Your task to perform on an android device: toggle priority inbox in the gmail app Image 0: 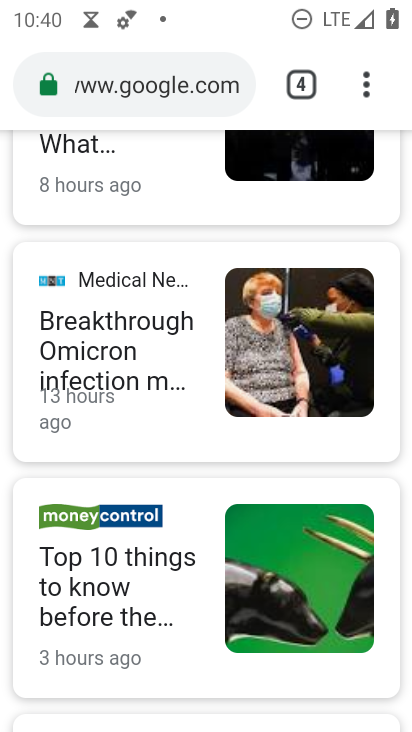
Step 0: press home button
Your task to perform on an android device: toggle priority inbox in the gmail app Image 1: 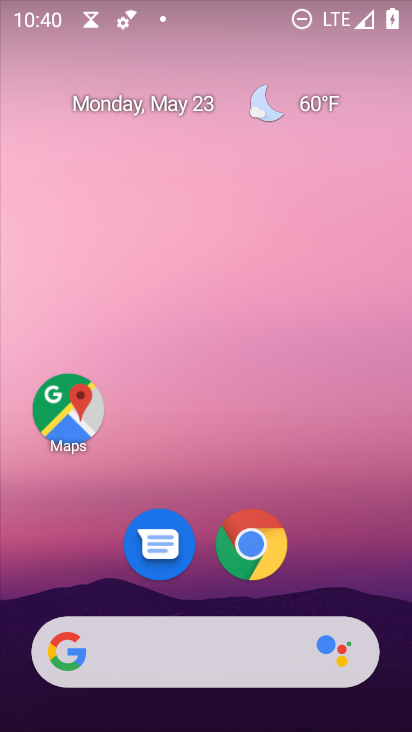
Step 1: drag from (328, 521) to (84, 136)
Your task to perform on an android device: toggle priority inbox in the gmail app Image 2: 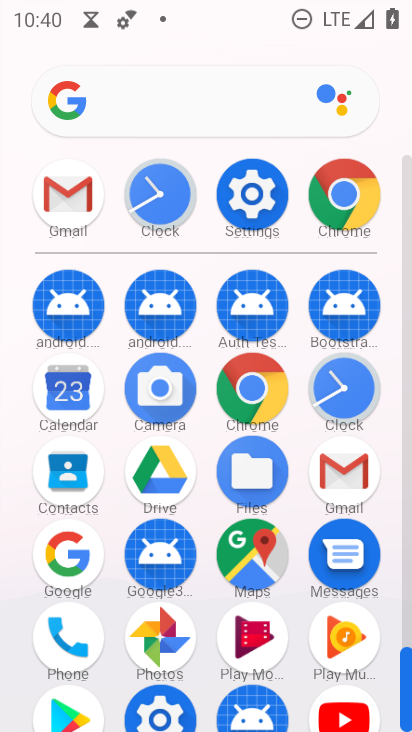
Step 2: click (341, 483)
Your task to perform on an android device: toggle priority inbox in the gmail app Image 3: 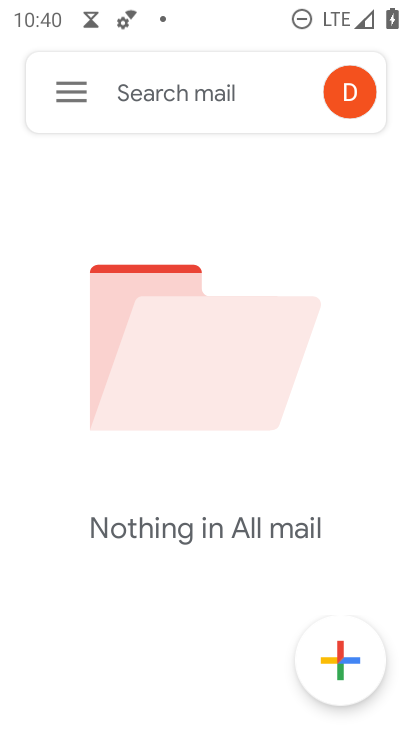
Step 3: click (68, 104)
Your task to perform on an android device: toggle priority inbox in the gmail app Image 4: 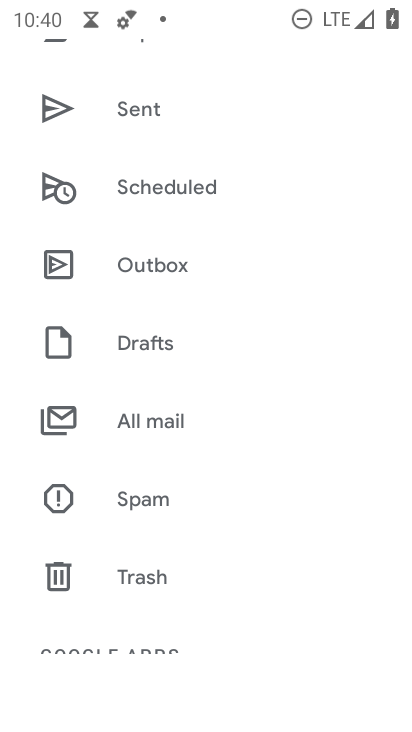
Step 4: drag from (293, 145) to (274, 582)
Your task to perform on an android device: toggle priority inbox in the gmail app Image 5: 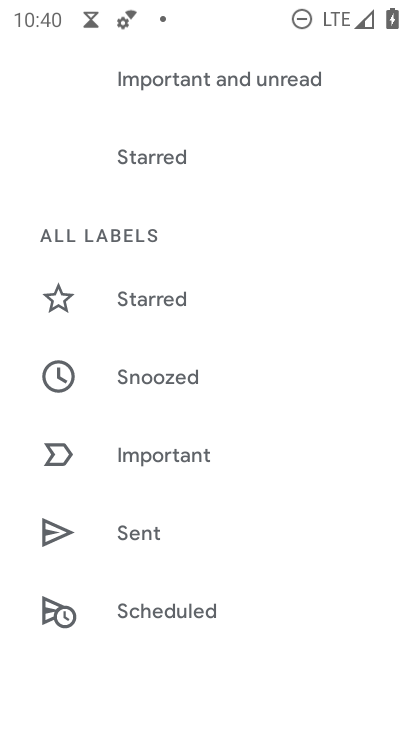
Step 5: click (220, 191)
Your task to perform on an android device: toggle priority inbox in the gmail app Image 6: 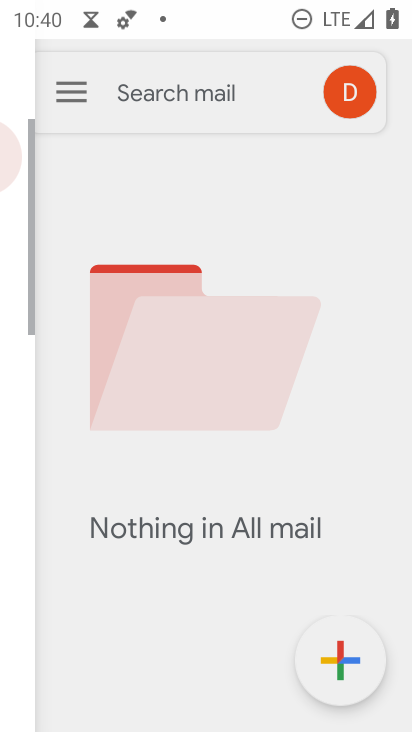
Step 6: drag from (210, 382) to (210, 519)
Your task to perform on an android device: toggle priority inbox in the gmail app Image 7: 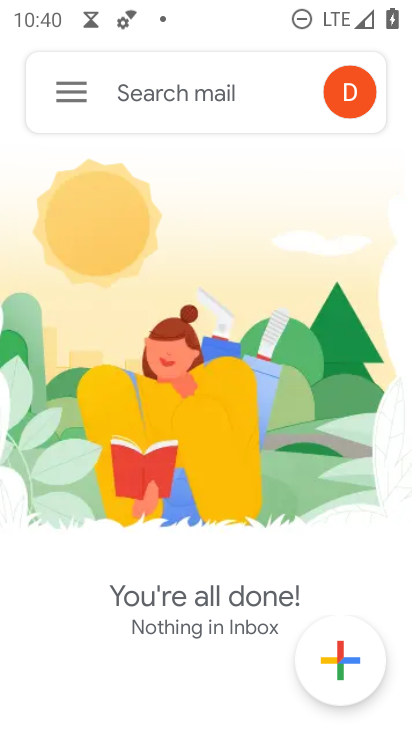
Step 7: click (68, 103)
Your task to perform on an android device: toggle priority inbox in the gmail app Image 8: 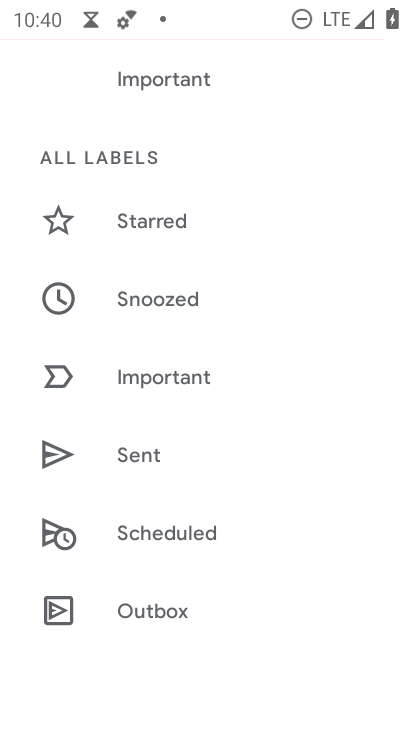
Step 8: drag from (124, 117) to (122, 483)
Your task to perform on an android device: toggle priority inbox in the gmail app Image 9: 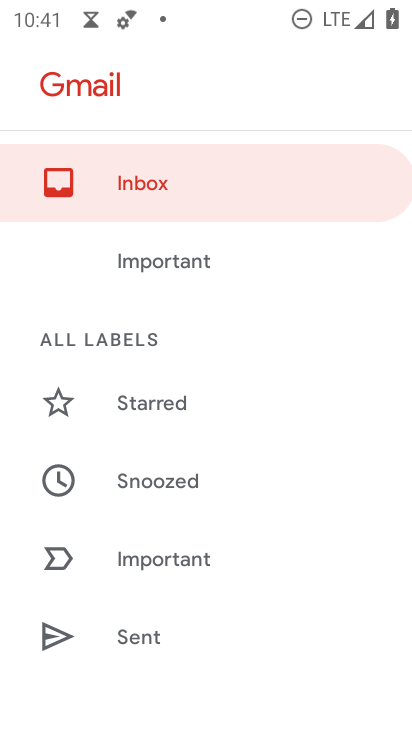
Step 9: drag from (228, 623) to (213, 517)
Your task to perform on an android device: toggle priority inbox in the gmail app Image 10: 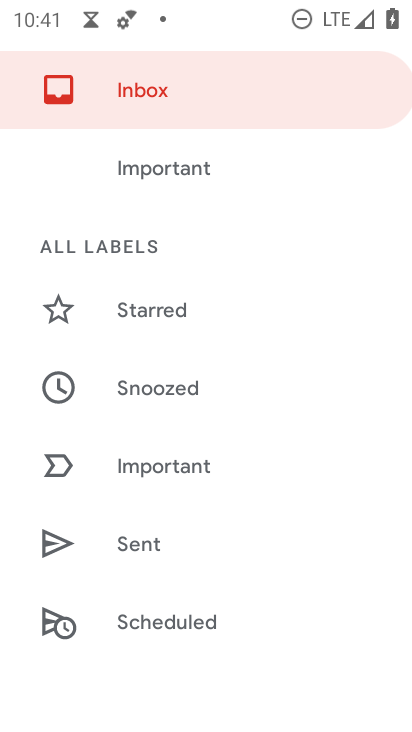
Step 10: drag from (210, 403) to (199, 170)
Your task to perform on an android device: toggle priority inbox in the gmail app Image 11: 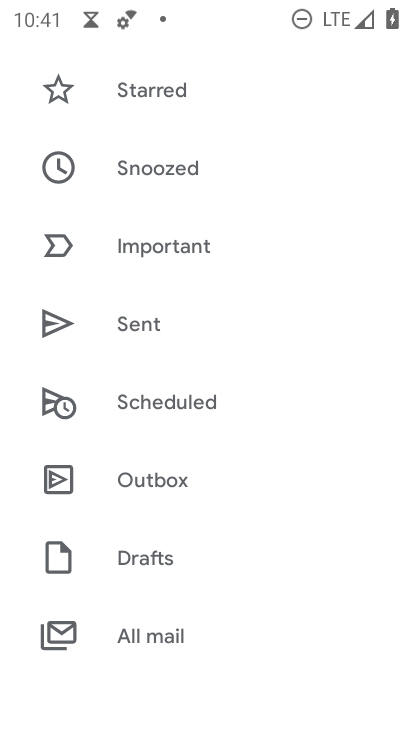
Step 11: drag from (231, 596) to (236, 552)
Your task to perform on an android device: toggle priority inbox in the gmail app Image 12: 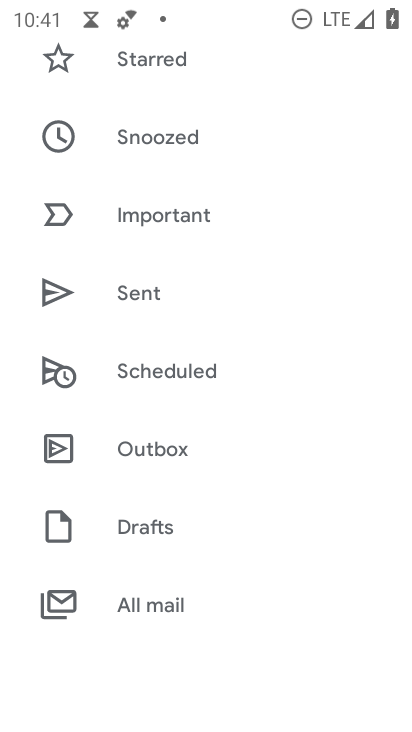
Step 12: click (236, 399)
Your task to perform on an android device: toggle priority inbox in the gmail app Image 13: 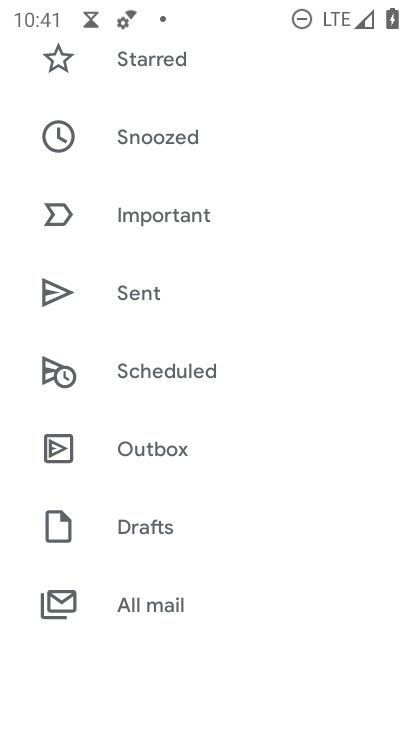
Step 13: drag from (236, 353) to (236, 164)
Your task to perform on an android device: toggle priority inbox in the gmail app Image 14: 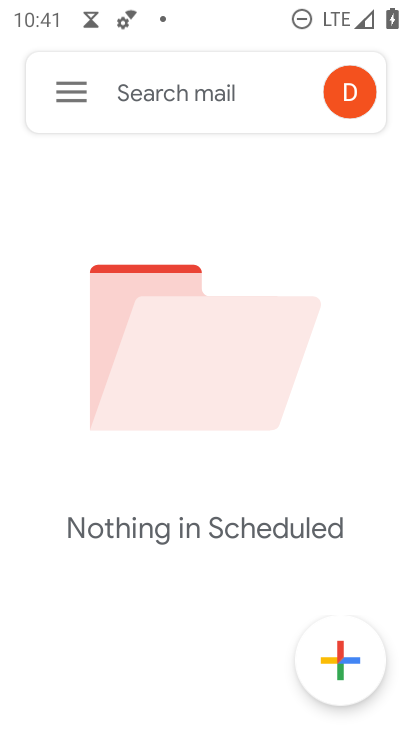
Step 14: click (72, 94)
Your task to perform on an android device: toggle priority inbox in the gmail app Image 15: 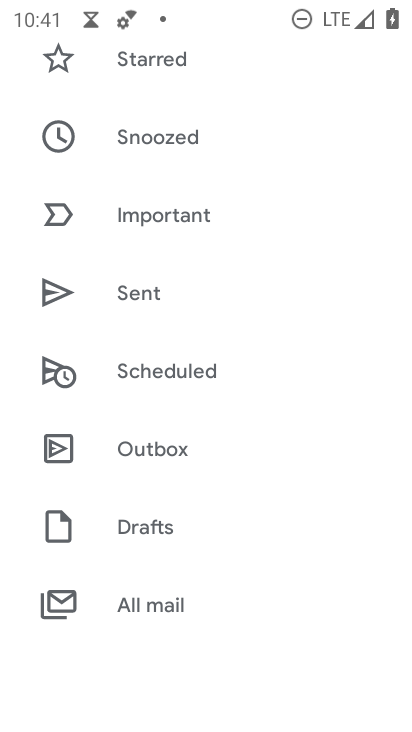
Step 15: drag from (167, 625) to (163, 200)
Your task to perform on an android device: toggle priority inbox in the gmail app Image 16: 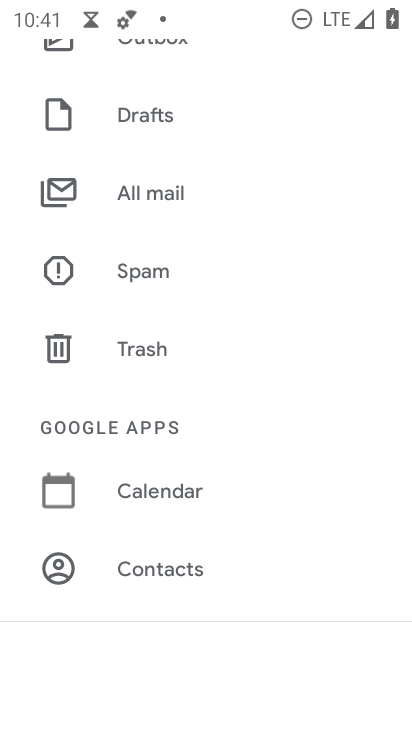
Step 16: drag from (178, 621) to (169, 365)
Your task to perform on an android device: toggle priority inbox in the gmail app Image 17: 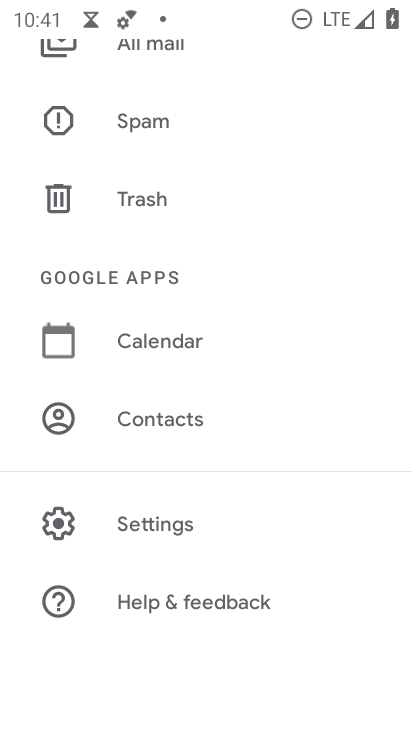
Step 17: click (139, 520)
Your task to perform on an android device: toggle priority inbox in the gmail app Image 18: 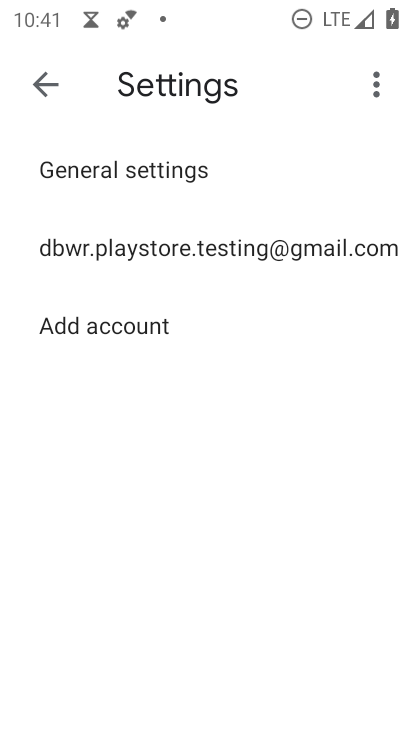
Step 18: click (234, 248)
Your task to perform on an android device: toggle priority inbox in the gmail app Image 19: 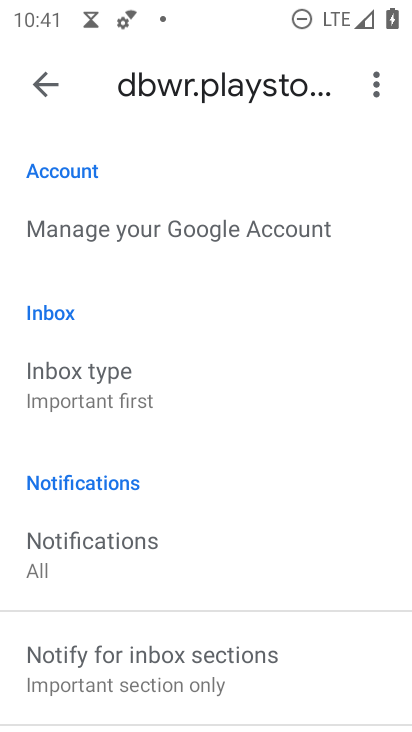
Step 19: click (108, 394)
Your task to perform on an android device: toggle priority inbox in the gmail app Image 20: 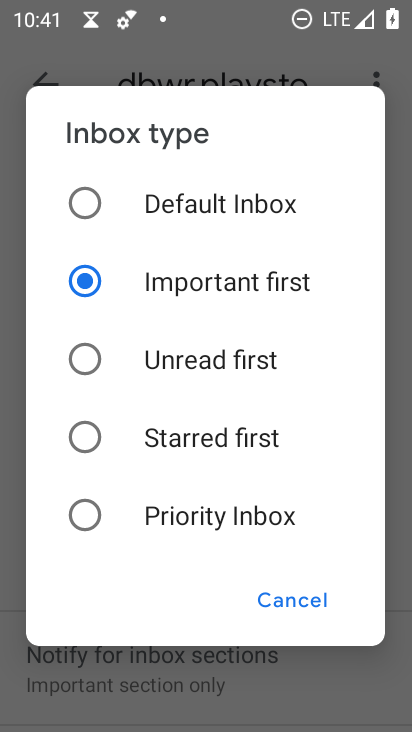
Step 20: click (90, 515)
Your task to perform on an android device: toggle priority inbox in the gmail app Image 21: 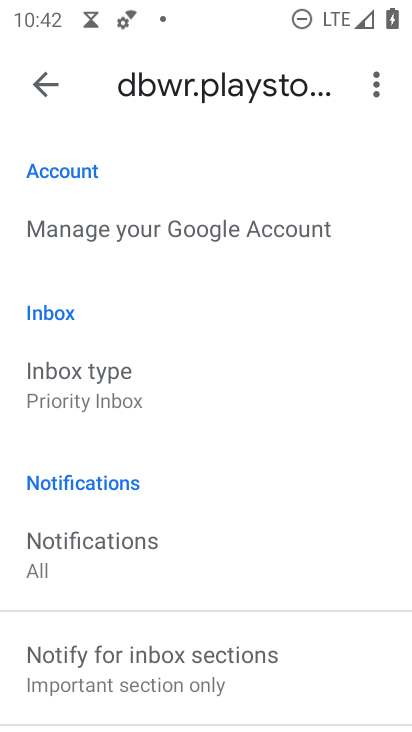
Step 21: task complete